Your task to perform on an android device: Open Google Maps and go to "Timeline" Image 0: 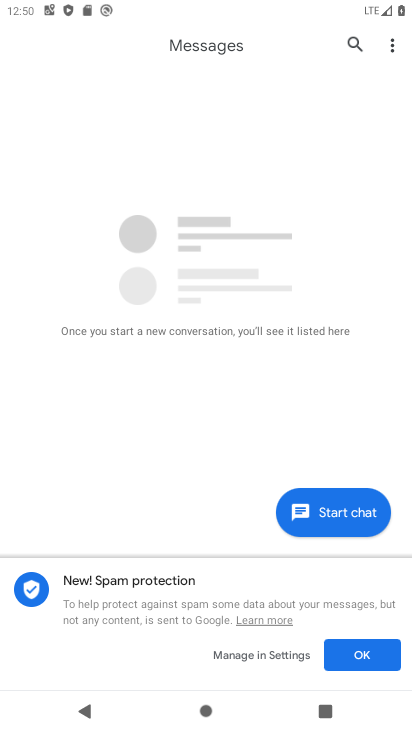
Step 0: press home button
Your task to perform on an android device: Open Google Maps and go to "Timeline" Image 1: 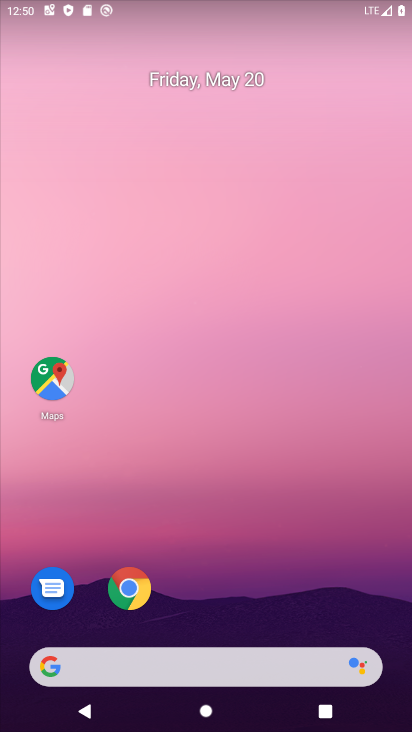
Step 1: click (48, 378)
Your task to perform on an android device: Open Google Maps and go to "Timeline" Image 2: 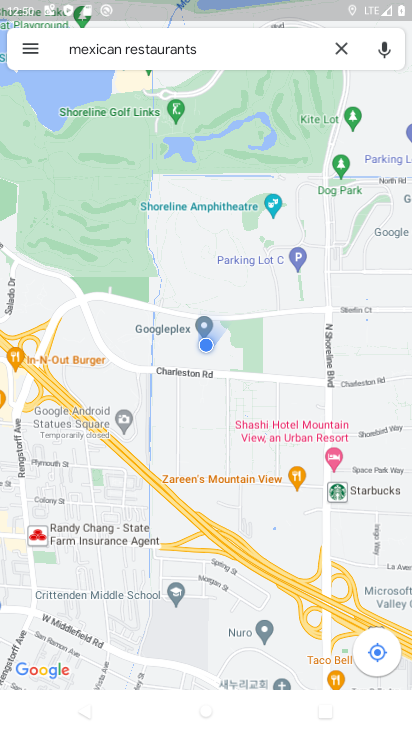
Step 2: click (337, 51)
Your task to perform on an android device: Open Google Maps and go to "Timeline" Image 3: 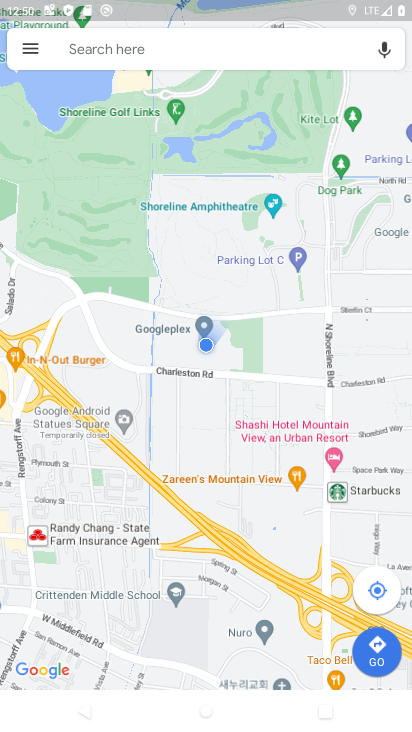
Step 3: click (26, 45)
Your task to perform on an android device: Open Google Maps and go to "Timeline" Image 4: 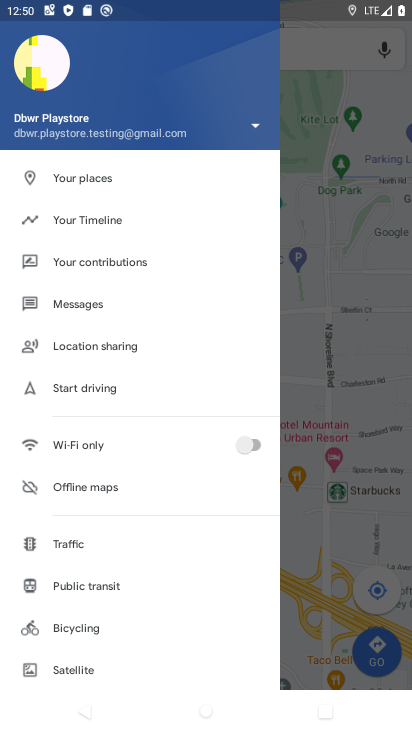
Step 4: click (87, 221)
Your task to perform on an android device: Open Google Maps and go to "Timeline" Image 5: 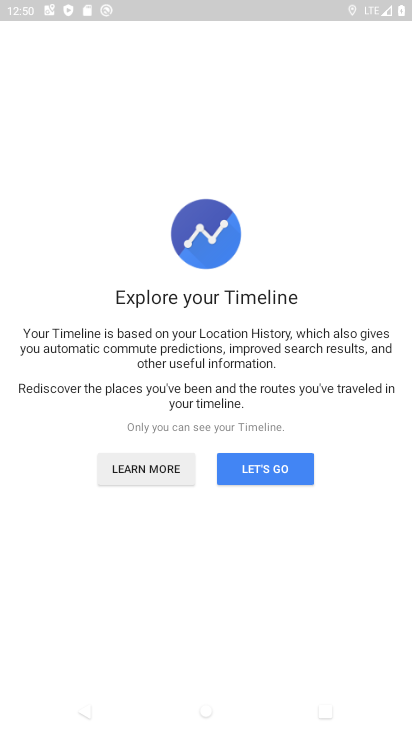
Step 5: task complete